Your task to perform on an android device: Go to ESPN.com Image 0: 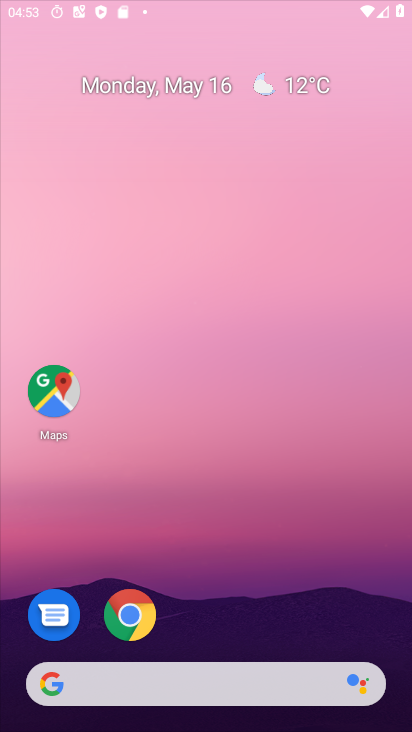
Step 0: click (247, 4)
Your task to perform on an android device: Go to ESPN.com Image 1: 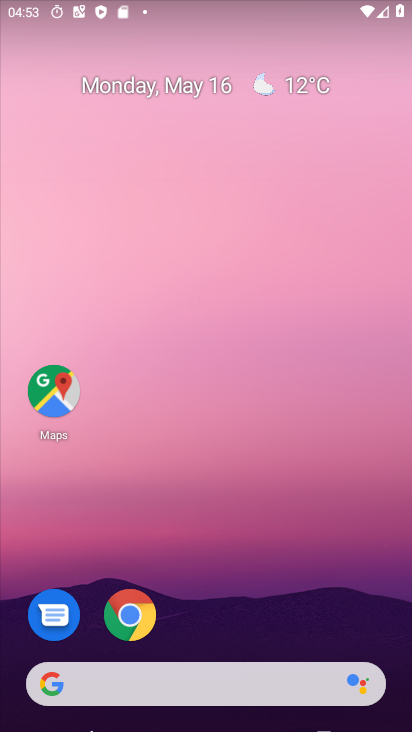
Step 1: drag from (259, 581) to (162, 48)
Your task to perform on an android device: Go to ESPN.com Image 2: 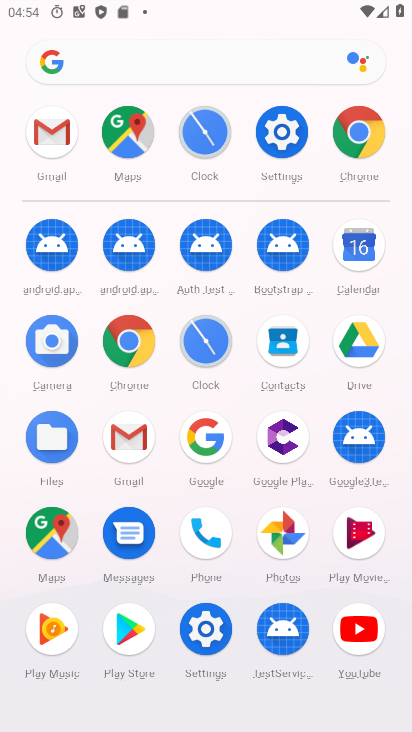
Step 2: click (210, 629)
Your task to perform on an android device: Go to ESPN.com Image 3: 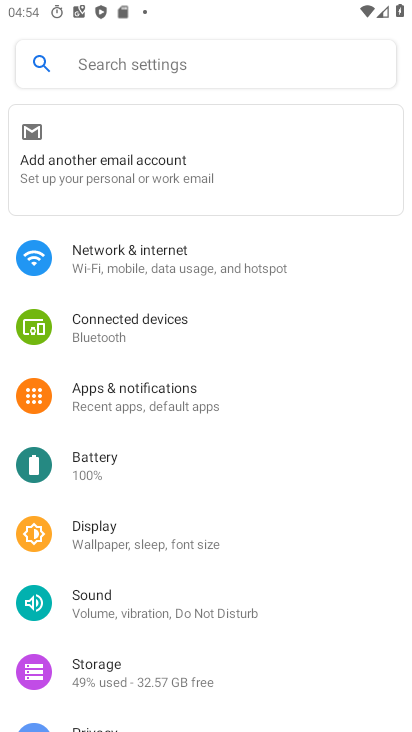
Step 3: drag from (145, 433) to (100, 82)
Your task to perform on an android device: Go to ESPN.com Image 4: 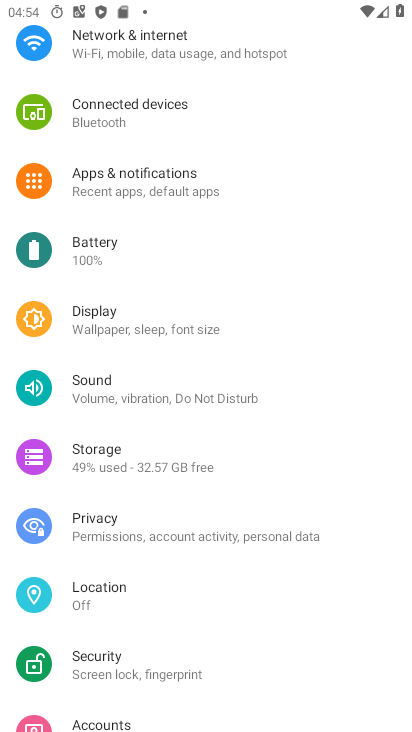
Step 4: drag from (220, 540) to (235, 138)
Your task to perform on an android device: Go to ESPN.com Image 5: 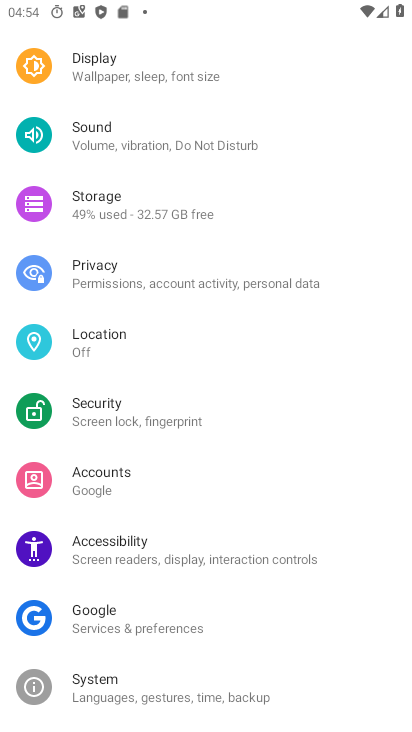
Step 5: drag from (273, 433) to (259, 73)
Your task to perform on an android device: Go to ESPN.com Image 6: 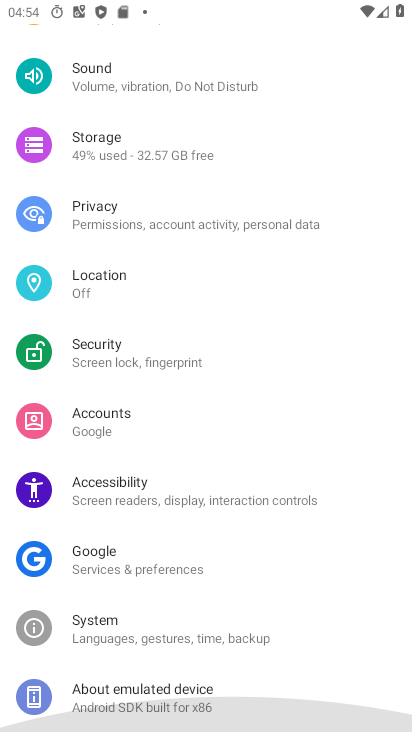
Step 6: drag from (244, 632) to (264, 132)
Your task to perform on an android device: Go to ESPN.com Image 7: 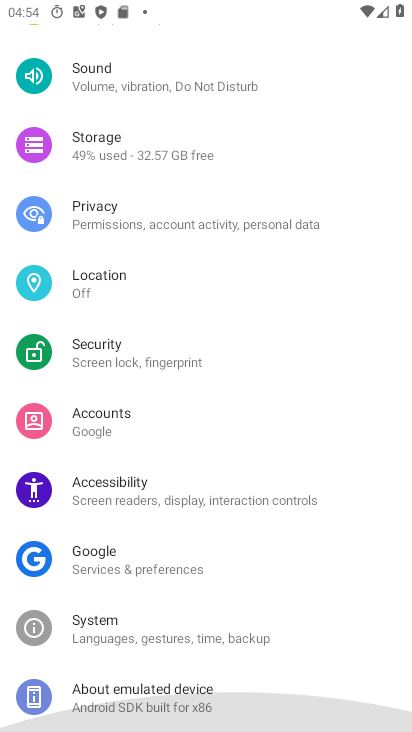
Step 7: drag from (255, 583) to (290, 167)
Your task to perform on an android device: Go to ESPN.com Image 8: 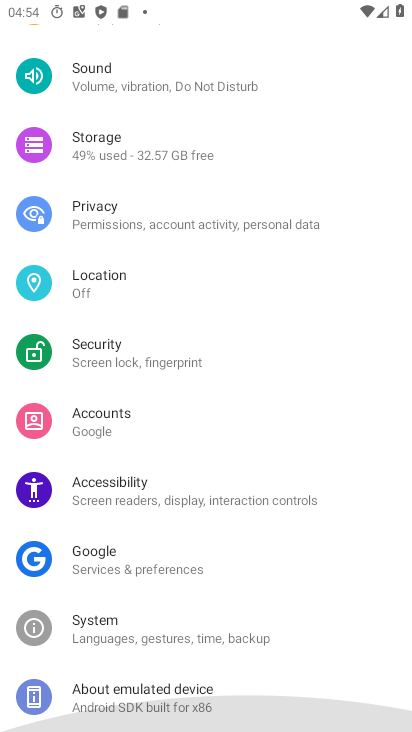
Step 8: drag from (224, 720) to (137, 258)
Your task to perform on an android device: Go to ESPN.com Image 9: 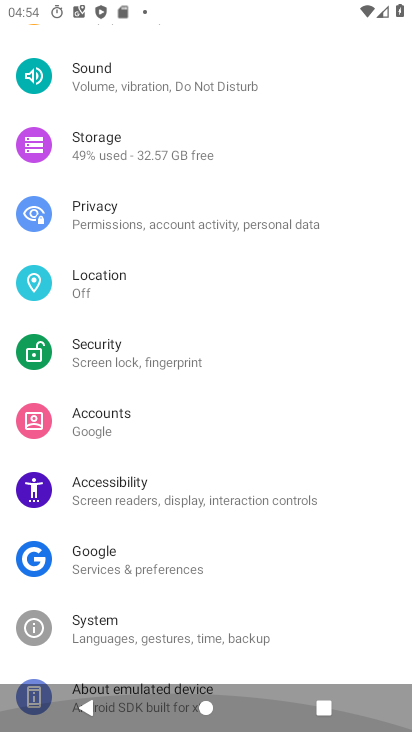
Step 9: drag from (63, 540) to (64, 144)
Your task to perform on an android device: Go to ESPN.com Image 10: 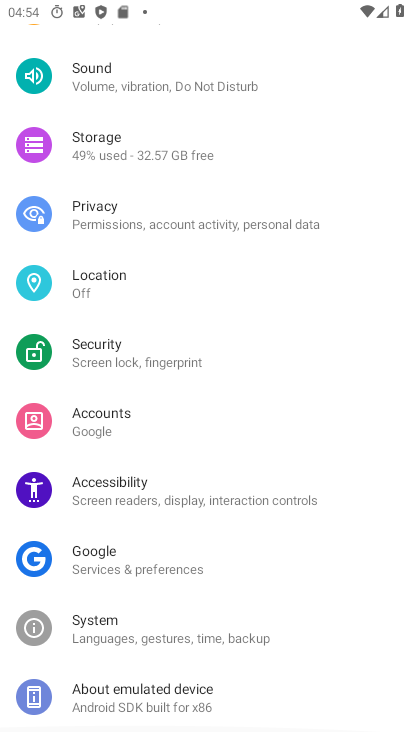
Step 10: drag from (134, 221) to (183, 618)
Your task to perform on an android device: Go to ESPN.com Image 11: 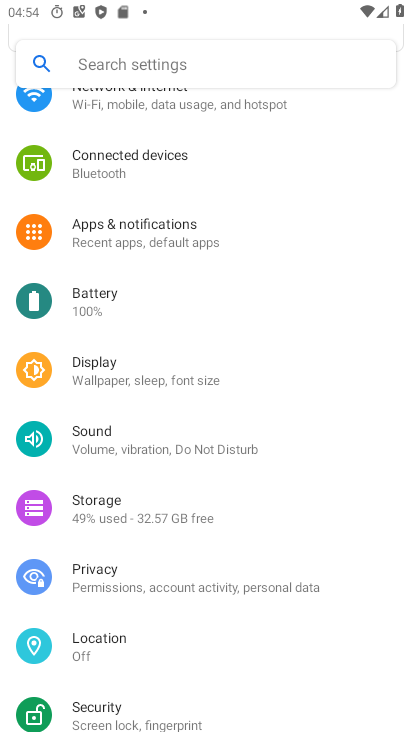
Step 11: click (194, 553)
Your task to perform on an android device: Go to ESPN.com Image 12: 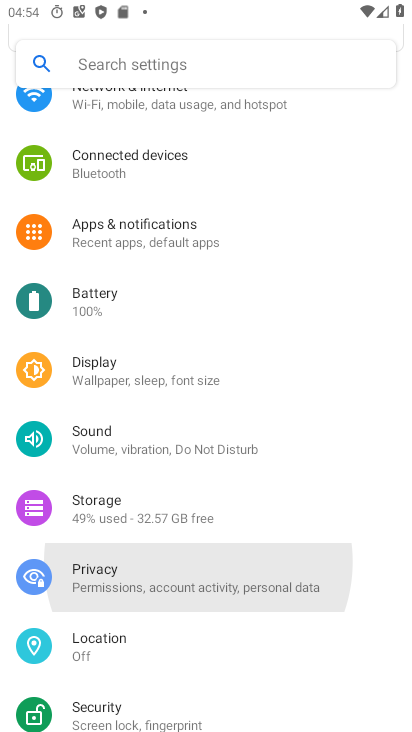
Step 12: drag from (177, 327) to (177, 583)
Your task to perform on an android device: Go to ESPN.com Image 13: 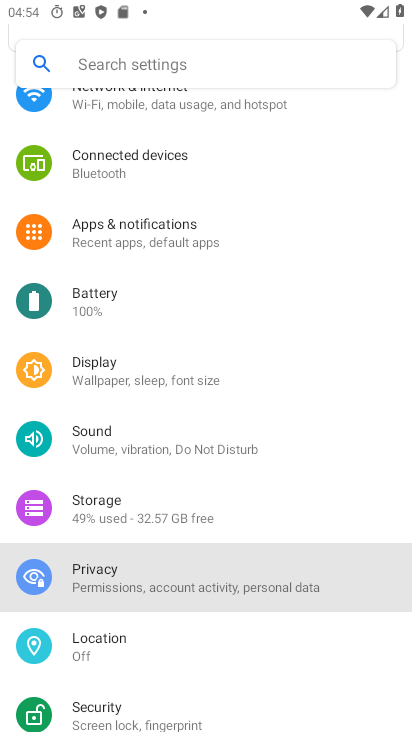
Step 13: drag from (150, 308) to (202, 588)
Your task to perform on an android device: Go to ESPN.com Image 14: 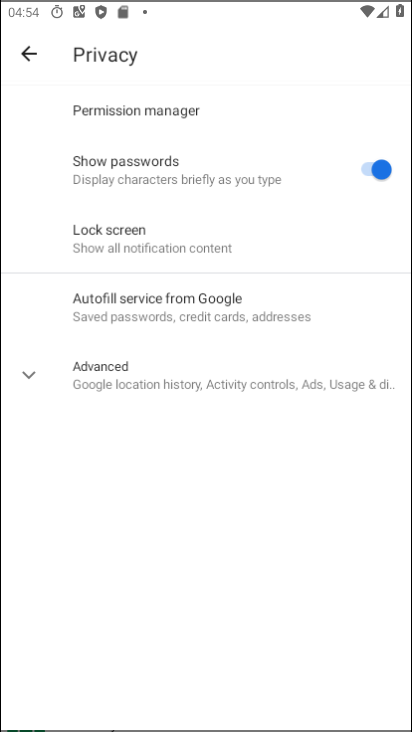
Step 14: drag from (230, 366) to (267, 602)
Your task to perform on an android device: Go to ESPN.com Image 15: 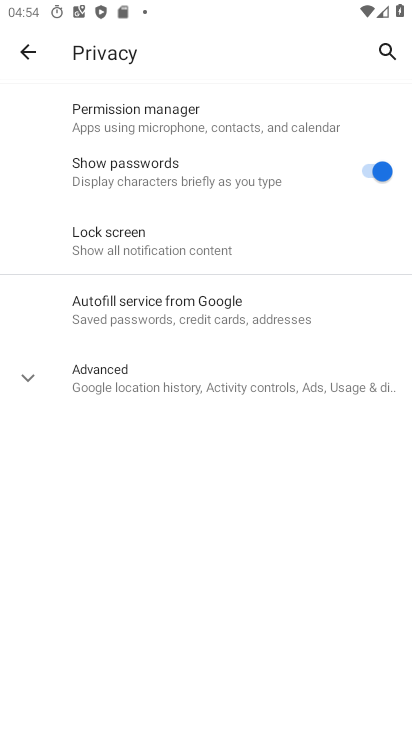
Step 15: drag from (177, 255) to (243, 728)
Your task to perform on an android device: Go to ESPN.com Image 16: 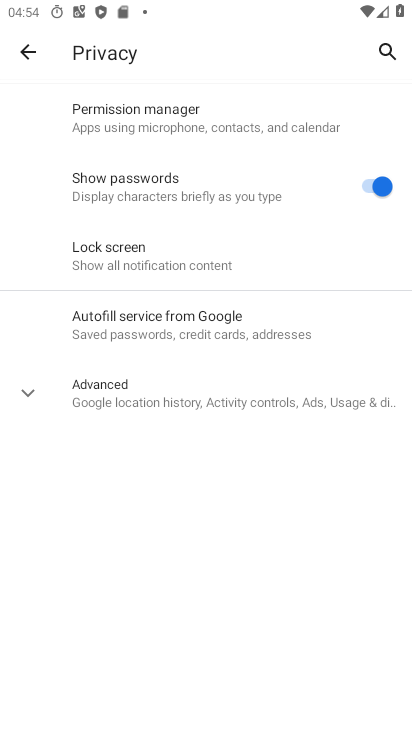
Step 16: click (25, 69)
Your task to perform on an android device: Go to ESPN.com Image 17: 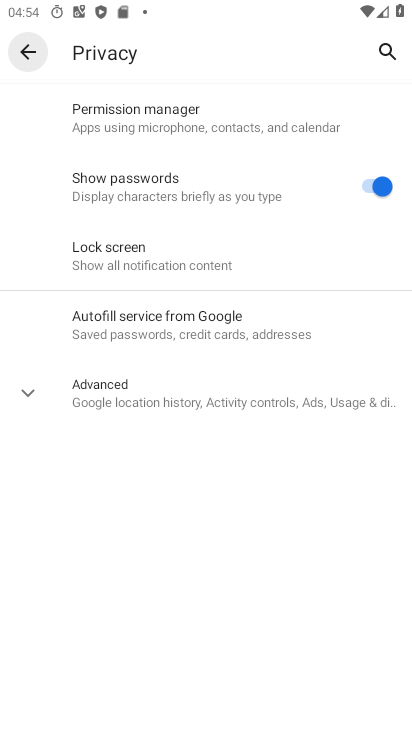
Step 17: click (23, 61)
Your task to perform on an android device: Go to ESPN.com Image 18: 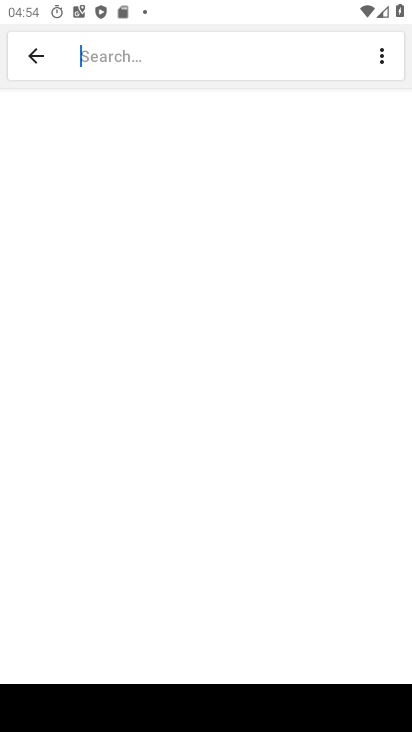
Step 18: press back button
Your task to perform on an android device: Go to ESPN.com Image 19: 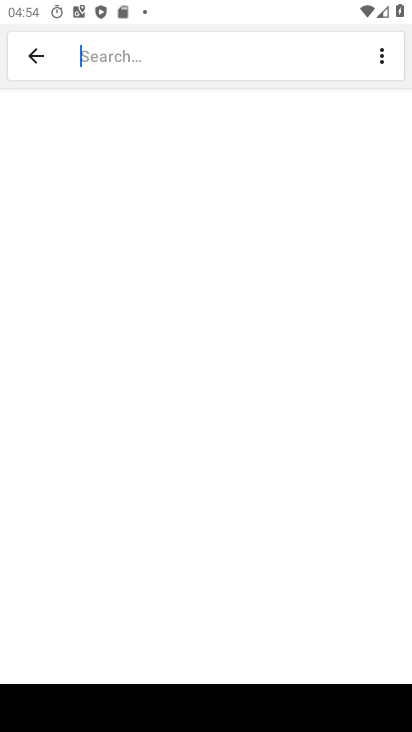
Step 19: press back button
Your task to perform on an android device: Go to ESPN.com Image 20: 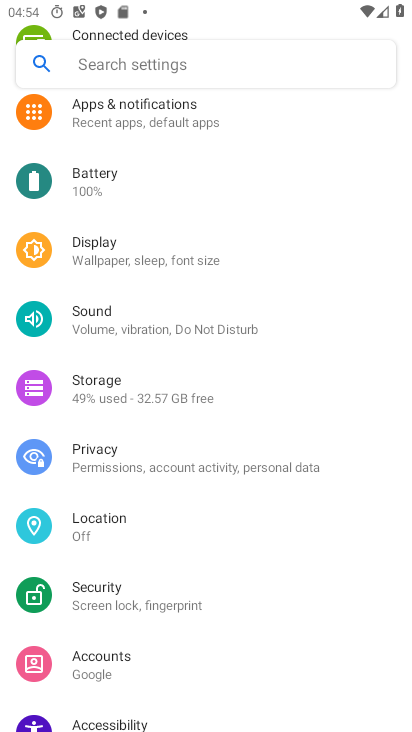
Step 20: press back button
Your task to perform on an android device: Go to ESPN.com Image 21: 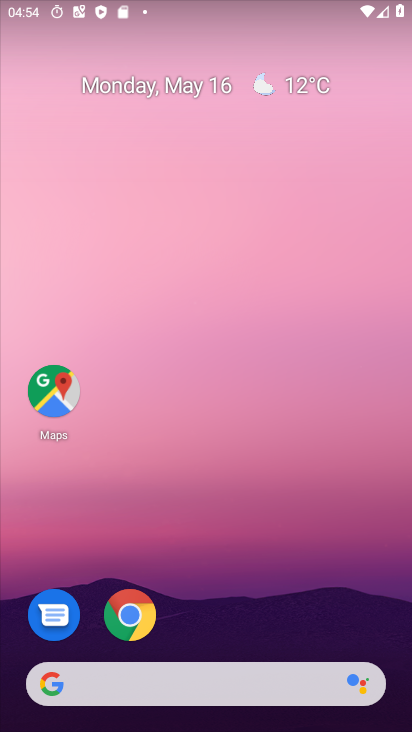
Step 21: drag from (316, 661) to (291, 0)
Your task to perform on an android device: Go to ESPN.com Image 22: 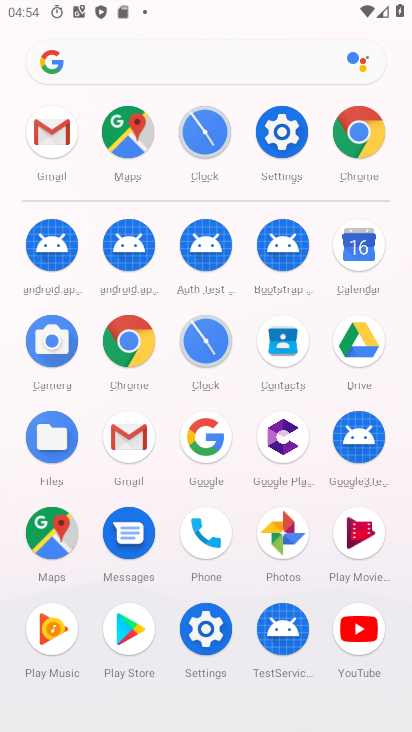
Step 22: click (354, 146)
Your task to perform on an android device: Go to ESPN.com Image 23: 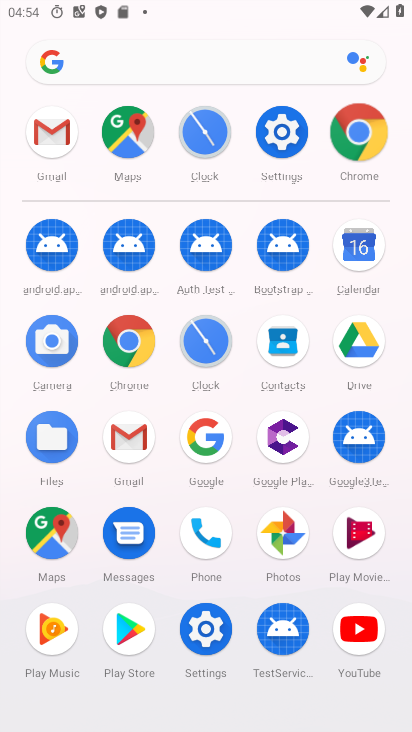
Step 23: click (355, 142)
Your task to perform on an android device: Go to ESPN.com Image 24: 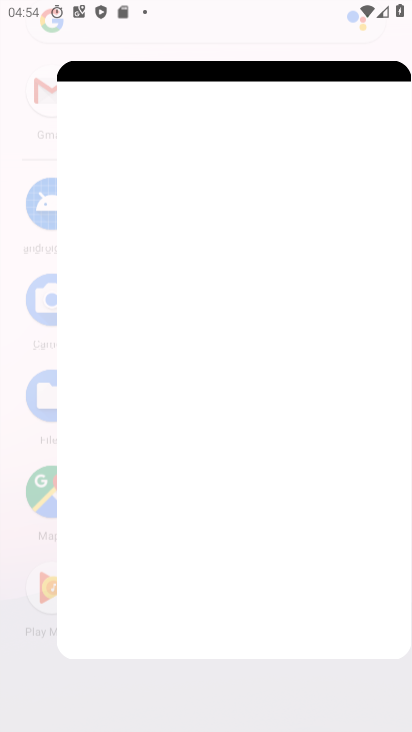
Step 24: click (365, 139)
Your task to perform on an android device: Go to ESPN.com Image 25: 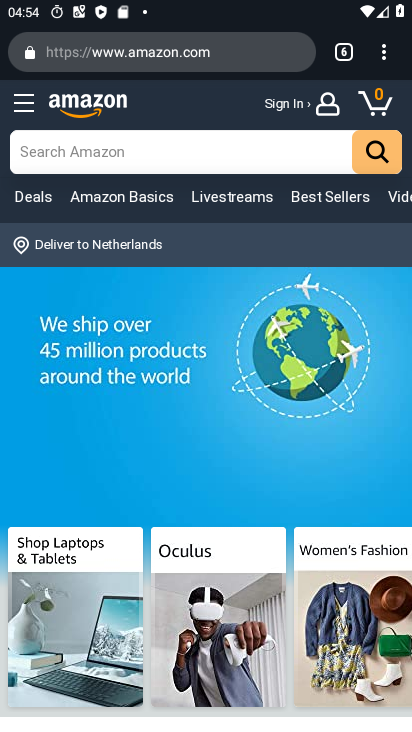
Step 25: drag from (381, 56) to (200, 664)
Your task to perform on an android device: Go to ESPN.com Image 26: 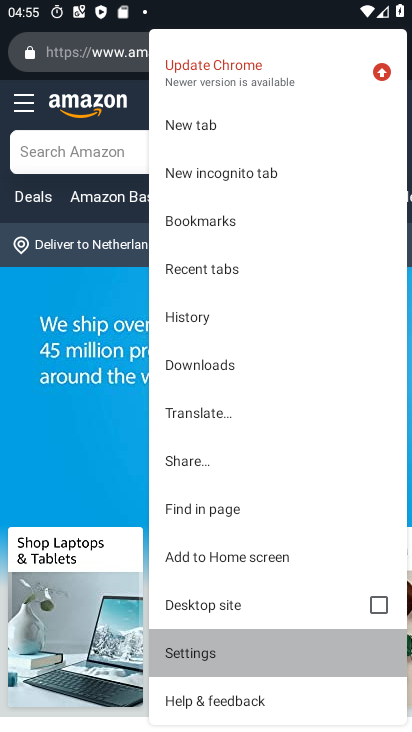
Step 26: click (204, 664)
Your task to perform on an android device: Go to ESPN.com Image 27: 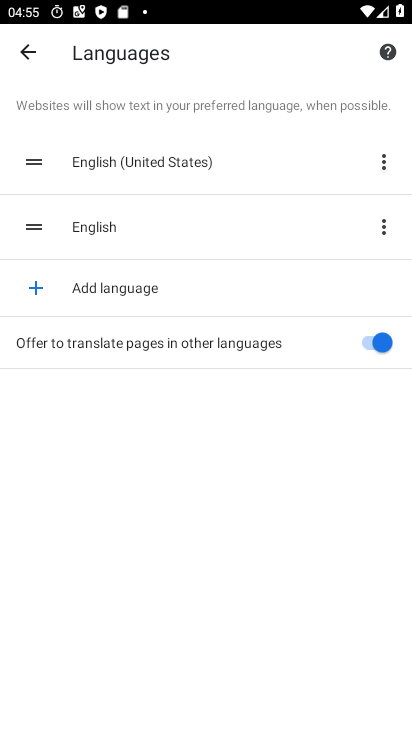
Step 27: click (33, 54)
Your task to perform on an android device: Go to ESPN.com Image 28: 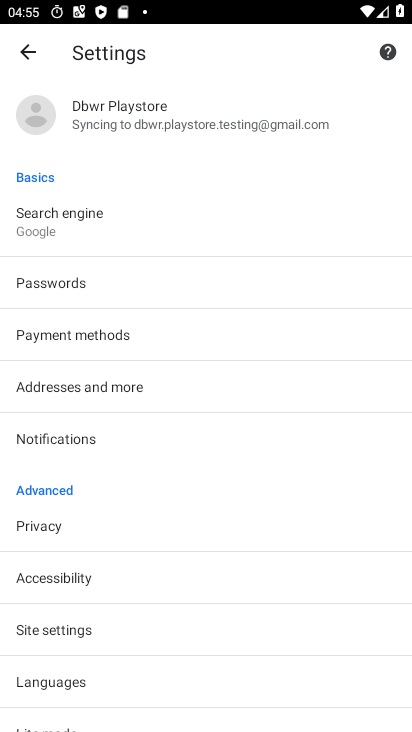
Step 28: click (24, 48)
Your task to perform on an android device: Go to ESPN.com Image 29: 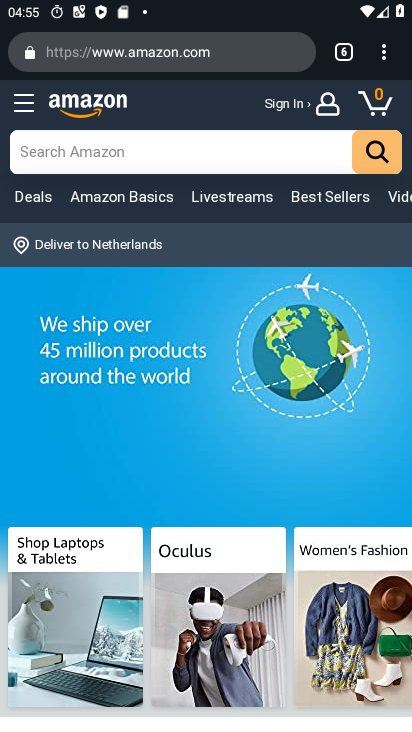
Step 29: click (380, 56)
Your task to perform on an android device: Go to ESPN.com Image 30: 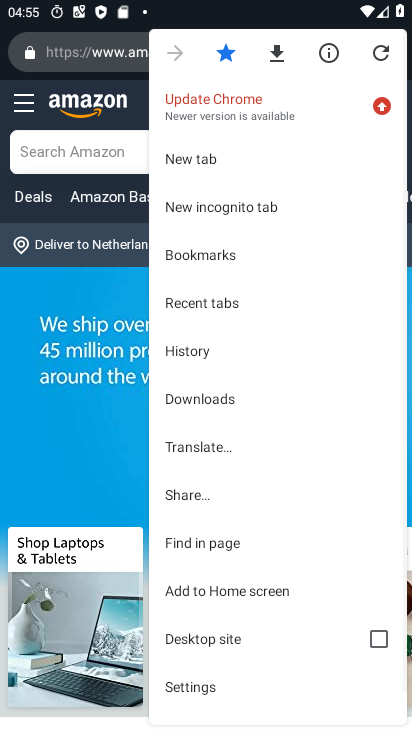
Step 30: click (210, 156)
Your task to perform on an android device: Go to ESPN.com Image 31: 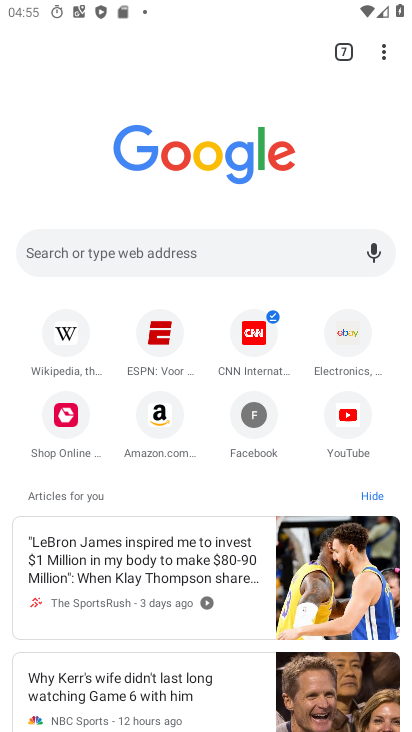
Step 31: click (154, 315)
Your task to perform on an android device: Go to ESPN.com Image 32: 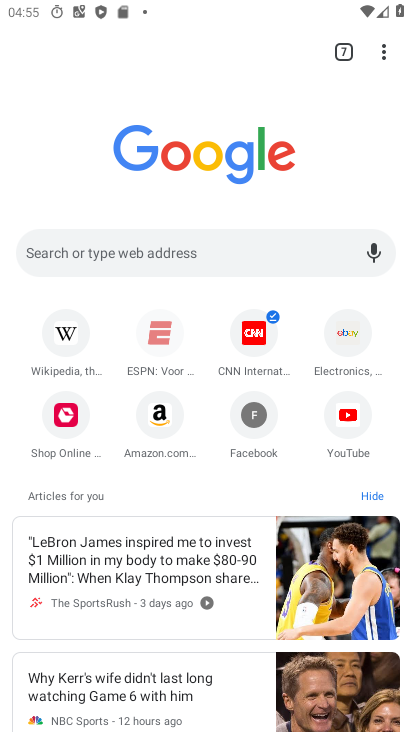
Step 32: task complete